Your task to perform on an android device: turn off notifications settings in the gmail app Image 0: 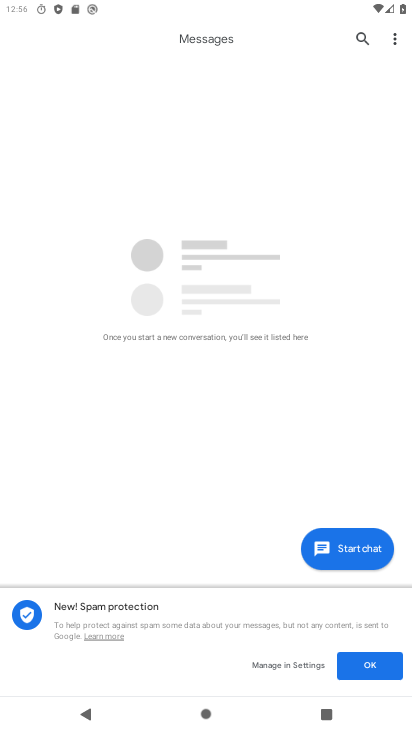
Step 0: press home button
Your task to perform on an android device: turn off notifications settings in the gmail app Image 1: 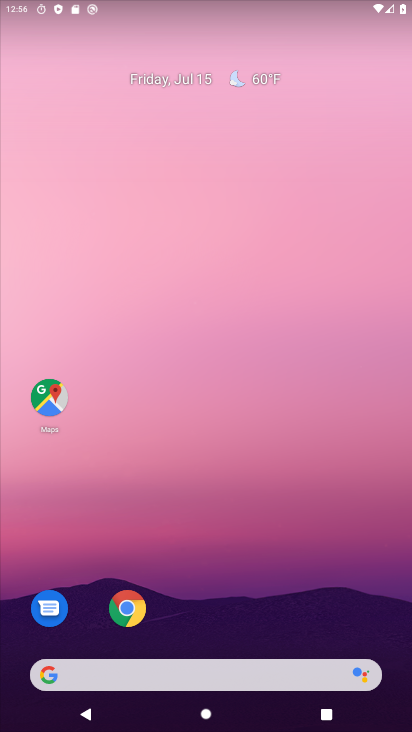
Step 1: drag from (288, 655) to (404, 88)
Your task to perform on an android device: turn off notifications settings in the gmail app Image 2: 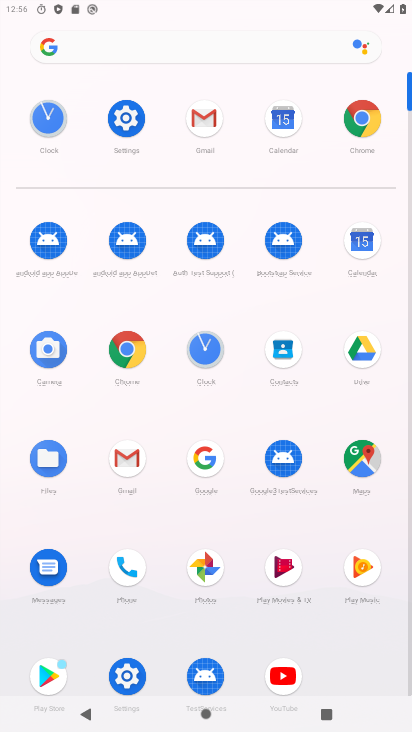
Step 2: click (145, 474)
Your task to perform on an android device: turn off notifications settings in the gmail app Image 3: 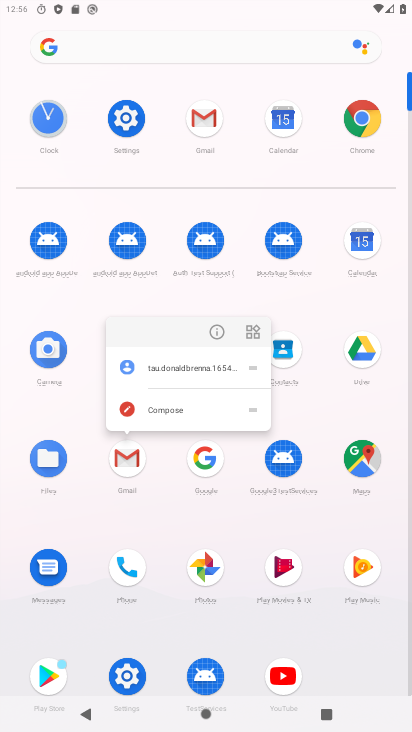
Step 3: click (220, 334)
Your task to perform on an android device: turn off notifications settings in the gmail app Image 4: 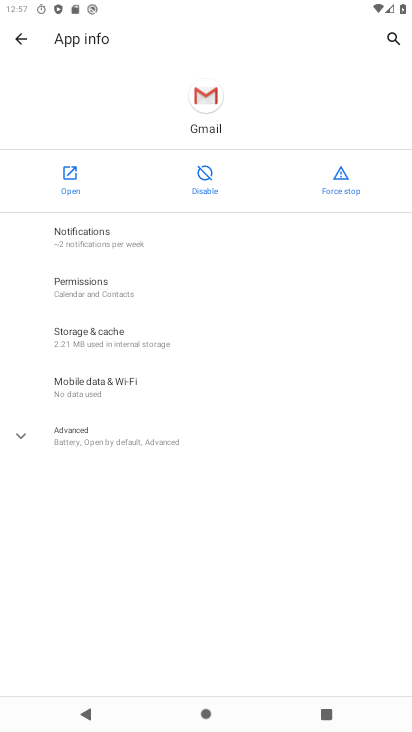
Step 4: click (151, 237)
Your task to perform on an android device: turn off notifications settings in the gmail app Image 5: 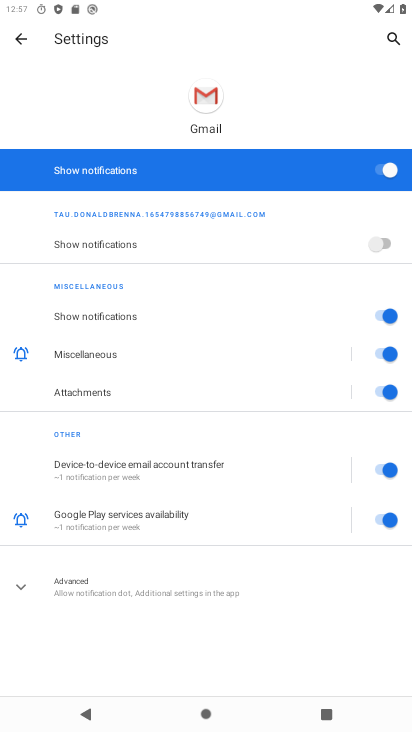
Step 5: click (399, 170)
Your task to perform on an android device: turn off notifications settings in the gmail app Image 6: 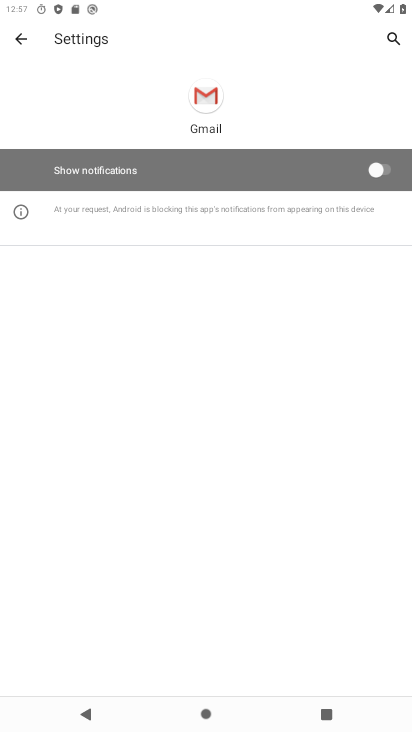
Step 6: task complete